Your task to perform on an android device: toggle show notifications on the lock screen Image 0: 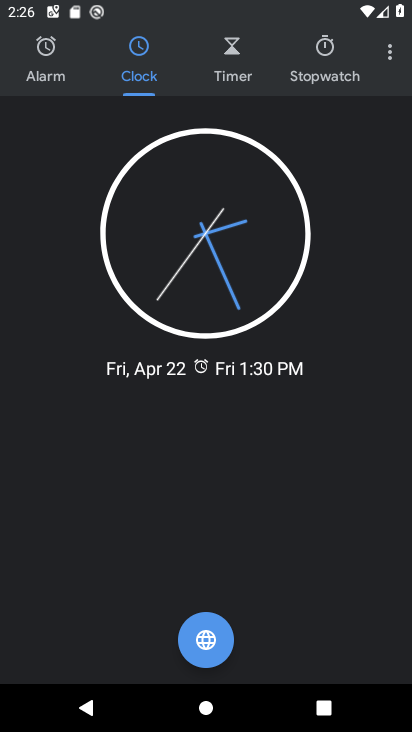
Step 0: press home button
Your task to perform on an android device: toggle show notifications on the lock screen Image 1: 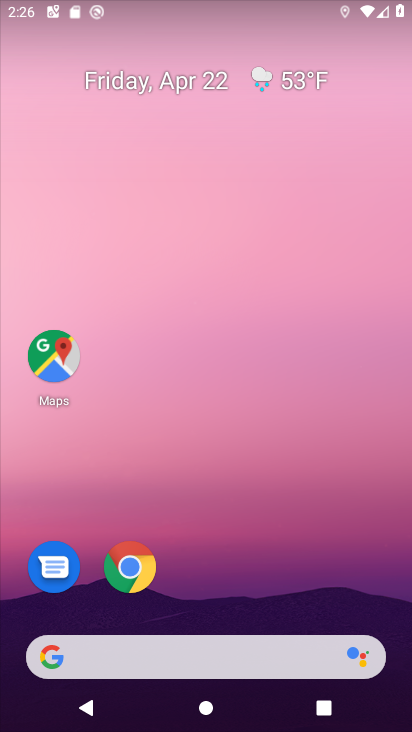
Step 1: drag from (315, 543) to (292, 67)
Your task to perform on an android device: toggle show notifications on the lock screen Image 2: 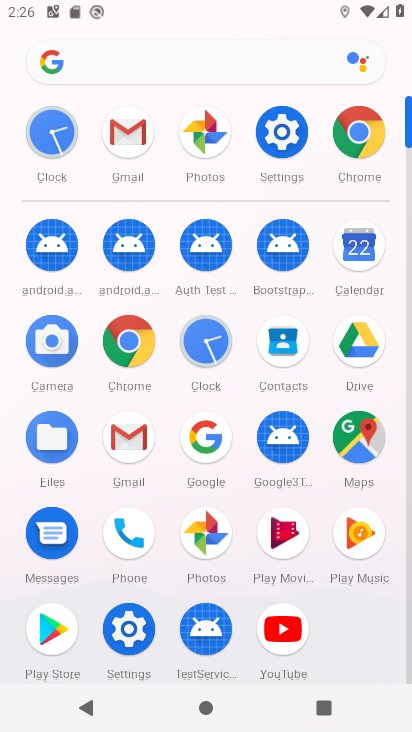
Step 2: click (279, 127)
Your task to perform on an android device: toggle show notifications on the lock screen Image 3: 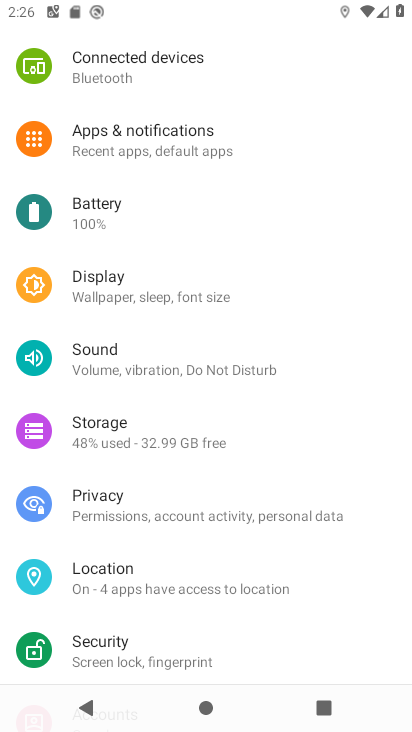
Step 3: click (205, 138)
Your task to perform on an android device: toggle show notifications on the lock screen Image 4: 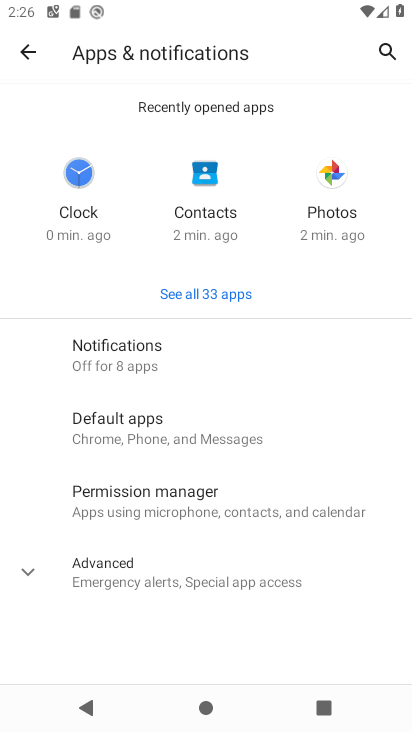
Step 4: click (245, 367)
Your task to perform on an android device: toggle show notifications on the lock screen Image 5: 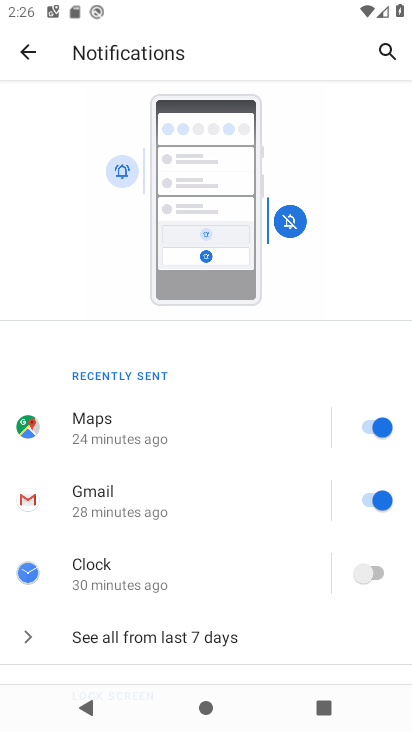
Step 5: task complete